Your task to perform on an android device: open app "LiveIn - Share Your Moment" (install if not already installed) Image 0: 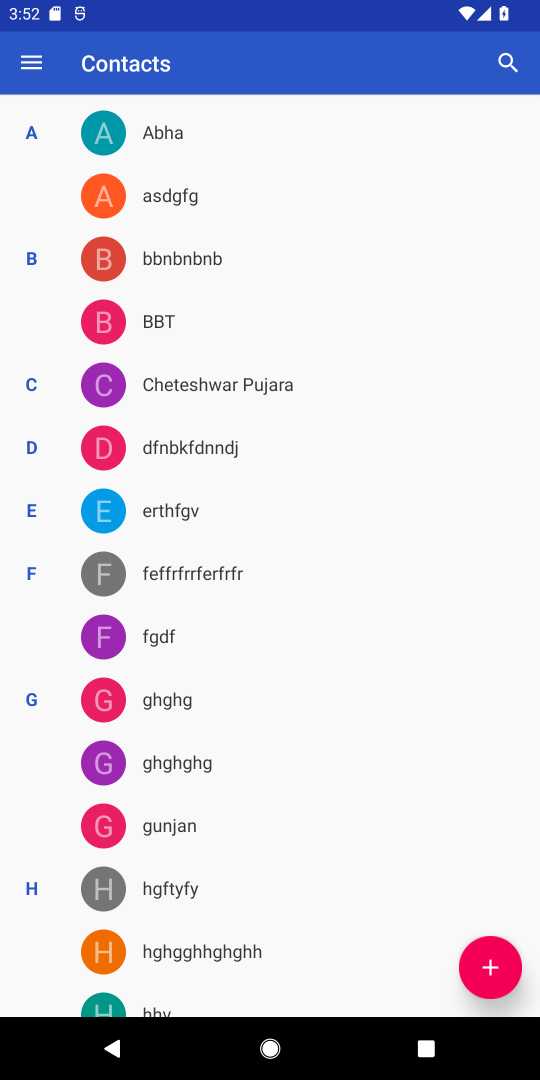
Step 0: press home button
Your task to perform on an android device: open app "LiveIn - Share Your Moment" (install if not already installed) Image 1: 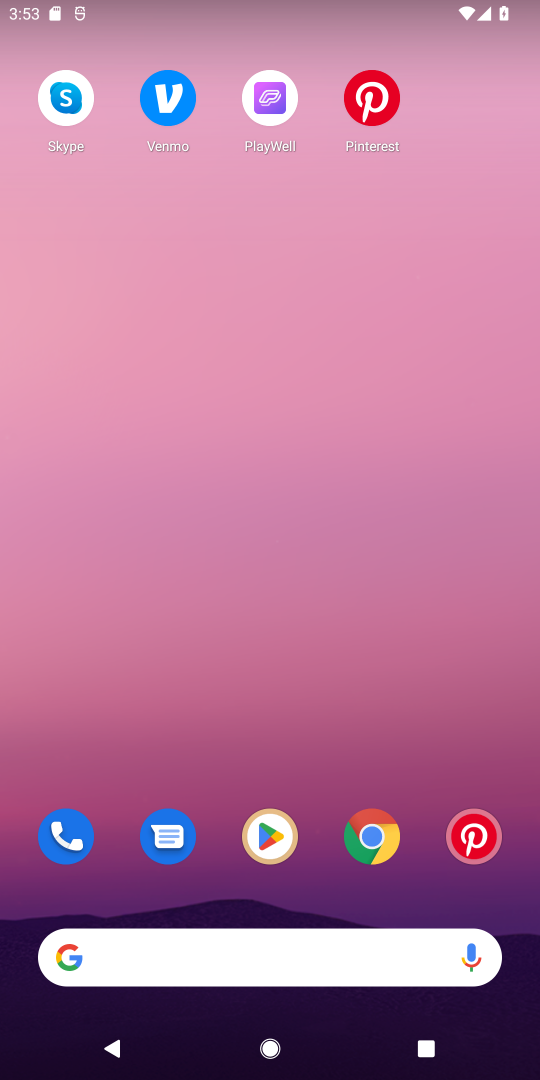
Step 1: click (273, 835)
Your task to perform on an android device: open app "LiveIn - Share Your Moment" (install if not already installed) Image 2: 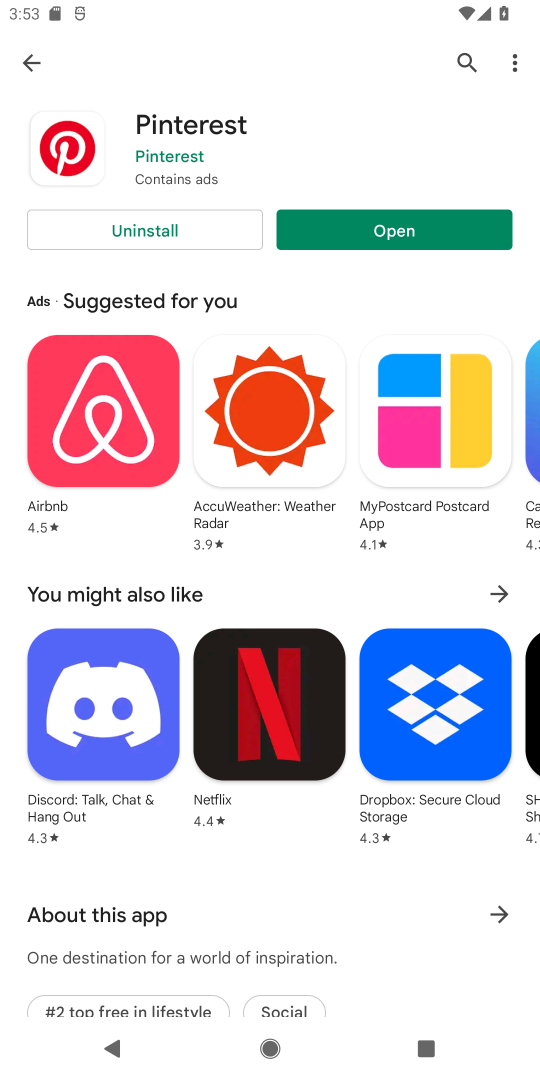
Step 2: click (460, 58)
Your task to perform on an android device: open app "LiveIn - Share Your Moment" (install if not already installed) Image 3: 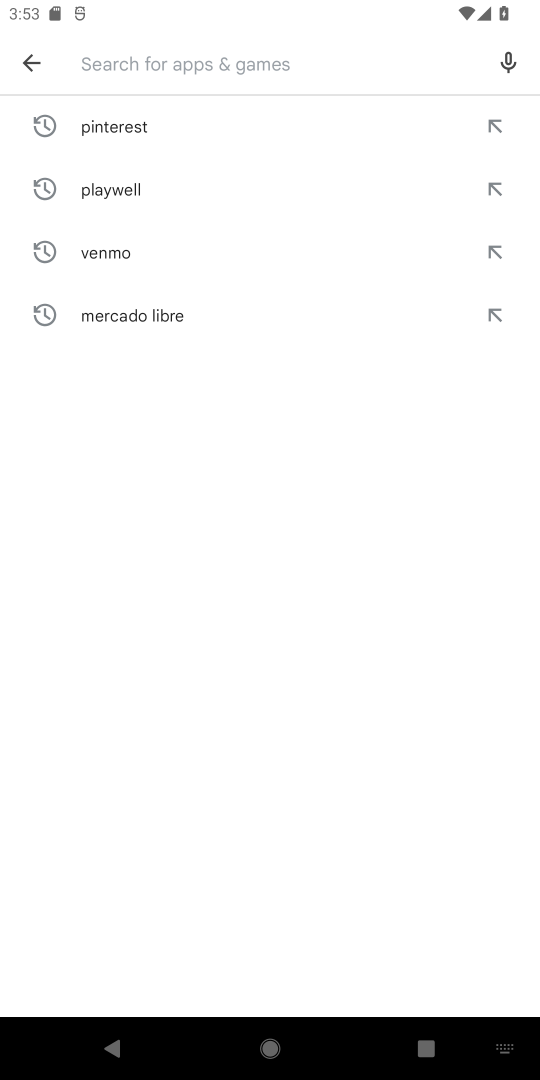
Step 3: type "LiveIn - Share Your Moment"
Your task to perform on an android device: open app "LiveIn - Share Your Moment" (install if not already installed) Image 4: 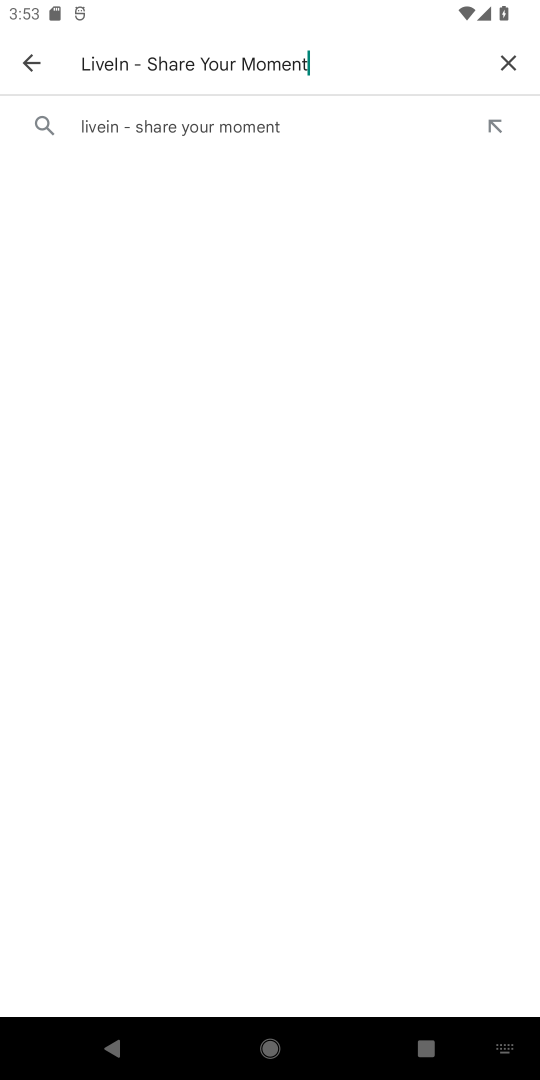
Step 4: click (157, 122)
Your task to perform on an android device: open app "LiveIn - Share Your Moment" (install if not already installed) Image 5: 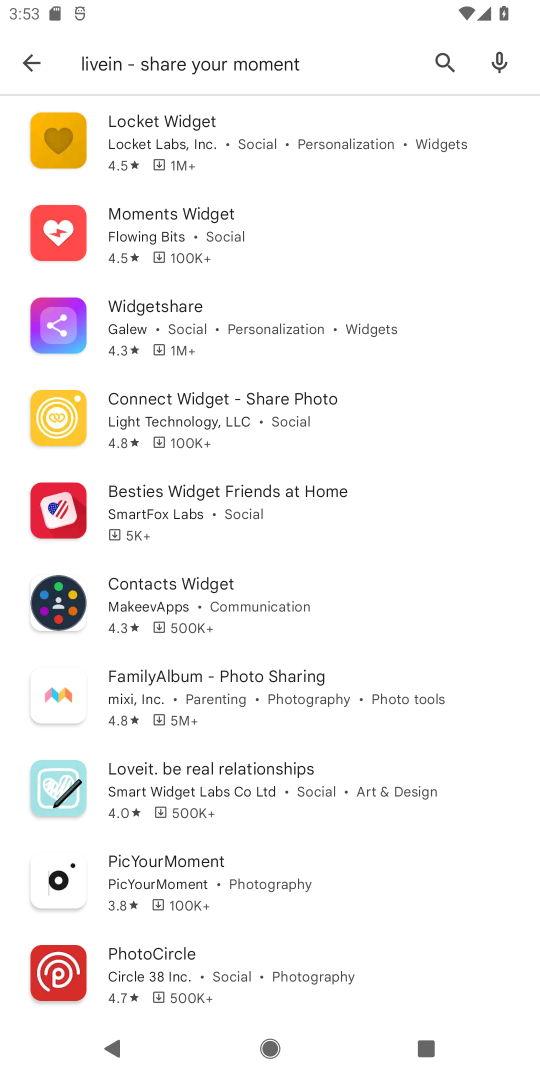
Step 5: task complete